Your task to perform on an android device: Go to battery settings Image 0: 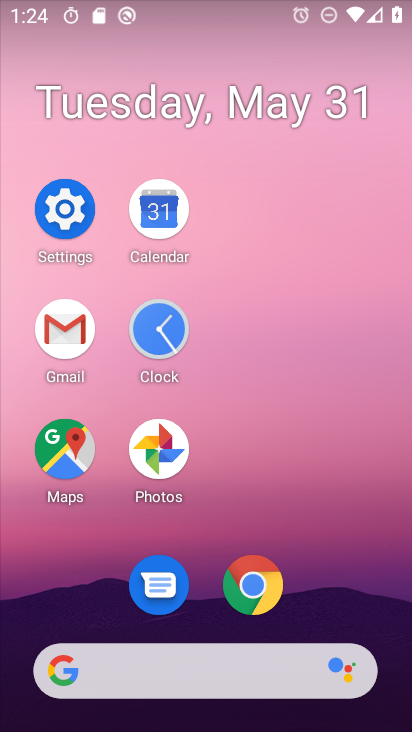
Step 0: click (83, 200)
Your task to perform on an android device: Go to battery settings Image 1: 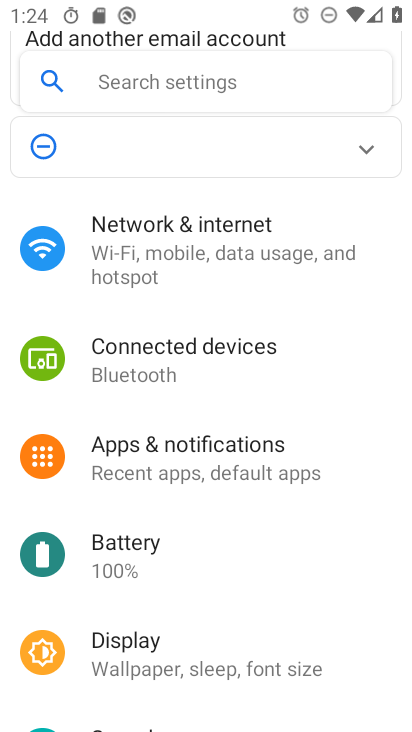
Step 1: click (187, 561)
Your task to perform on an android device: Go to battery settings Image 2: 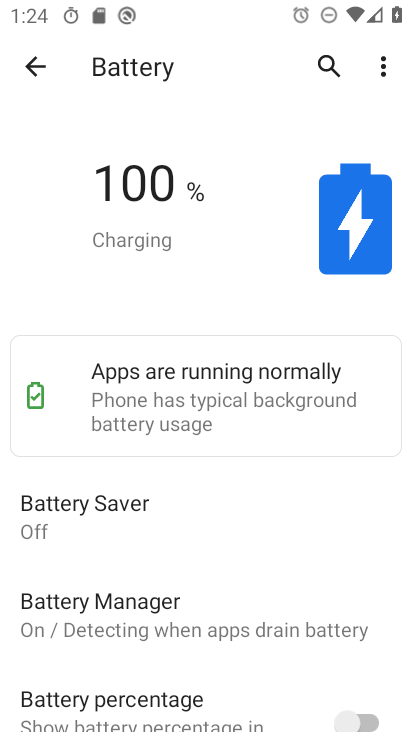
Step 2: task complete